Your task to perform on an android device: change the clock style Image 0: 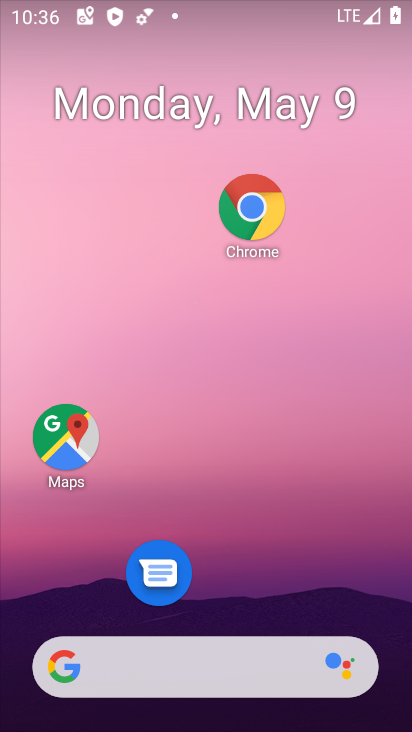
Step 0: drag from (203, 593) to (271, 182)
Your task to perform on an android device: change the clock style Image 1: 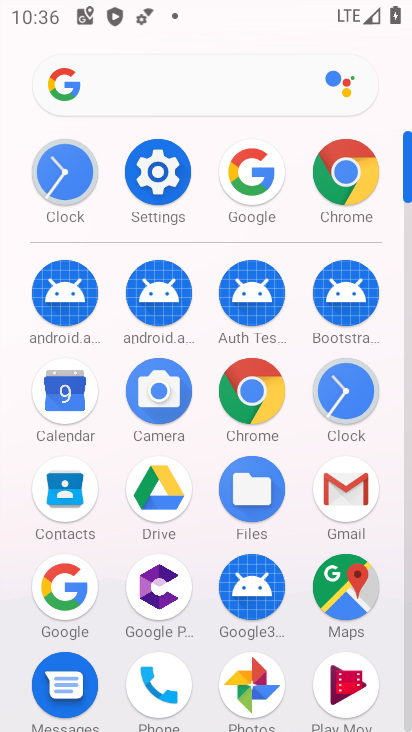
Step 1: drag from (270, 438) to (297, 211)
Your task to perform on an android device: change the clock style Image 2: 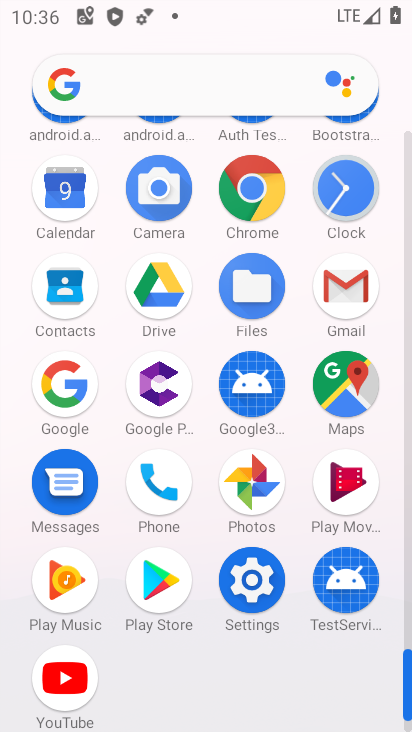
Step 2: click (353, 178)
Your task to perform on an android device: change the clock style Image 3: 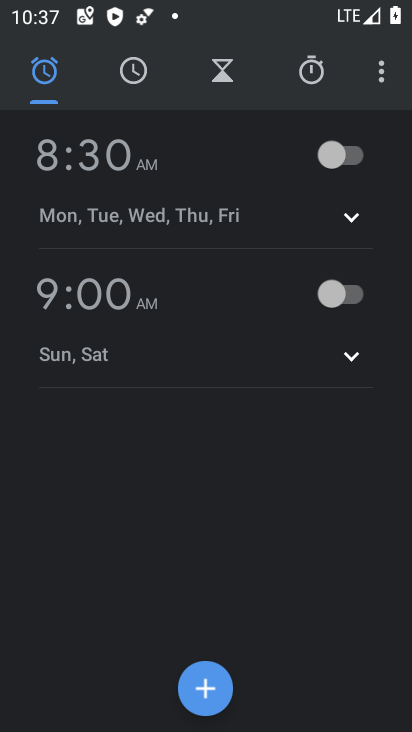
Step 3: click (377, 84)
Your task to perform on an android device: change the clock style Image 4: 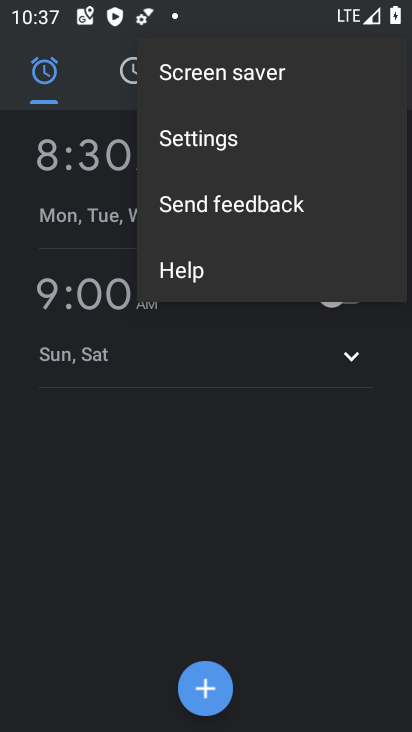
Step 4: click (228, 128)
Your task to perform on an android device: change the clock style Image 5: 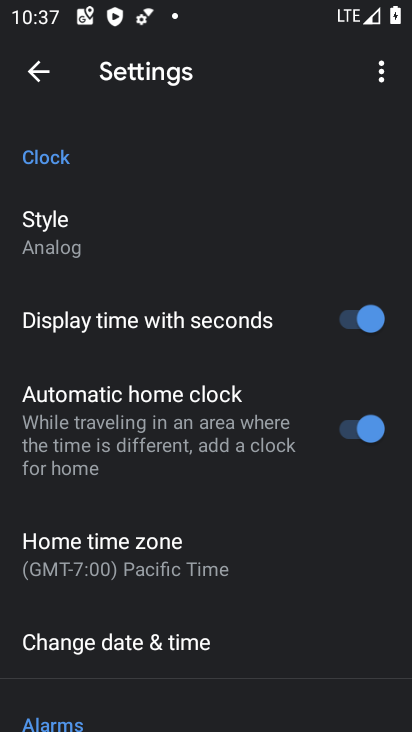
Step 5: click (147, 261)
Your task to perform on an android device: change the clock style Image 6: 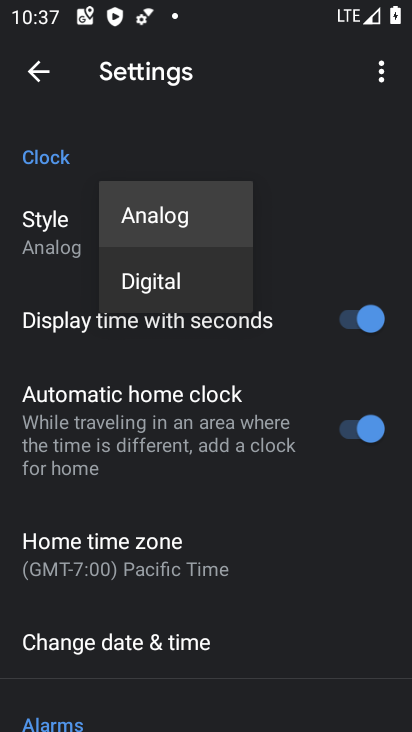
Step 6: click (182, 286)
Your task to perform on an android device: change the clock style Image 7: 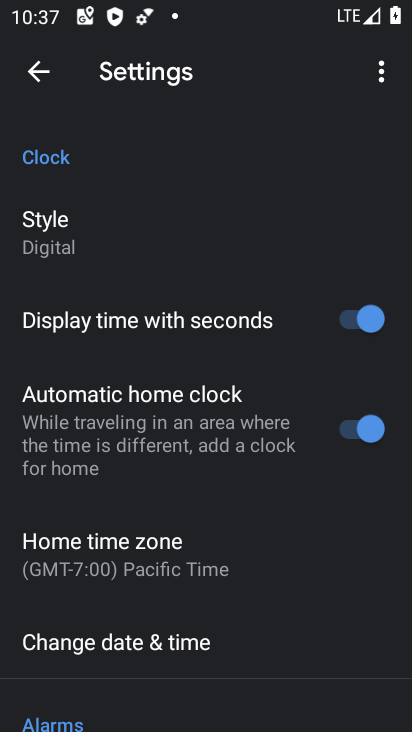
Step 7: task complete